Your task to perform on an android device: Search for a new blush Image 0: 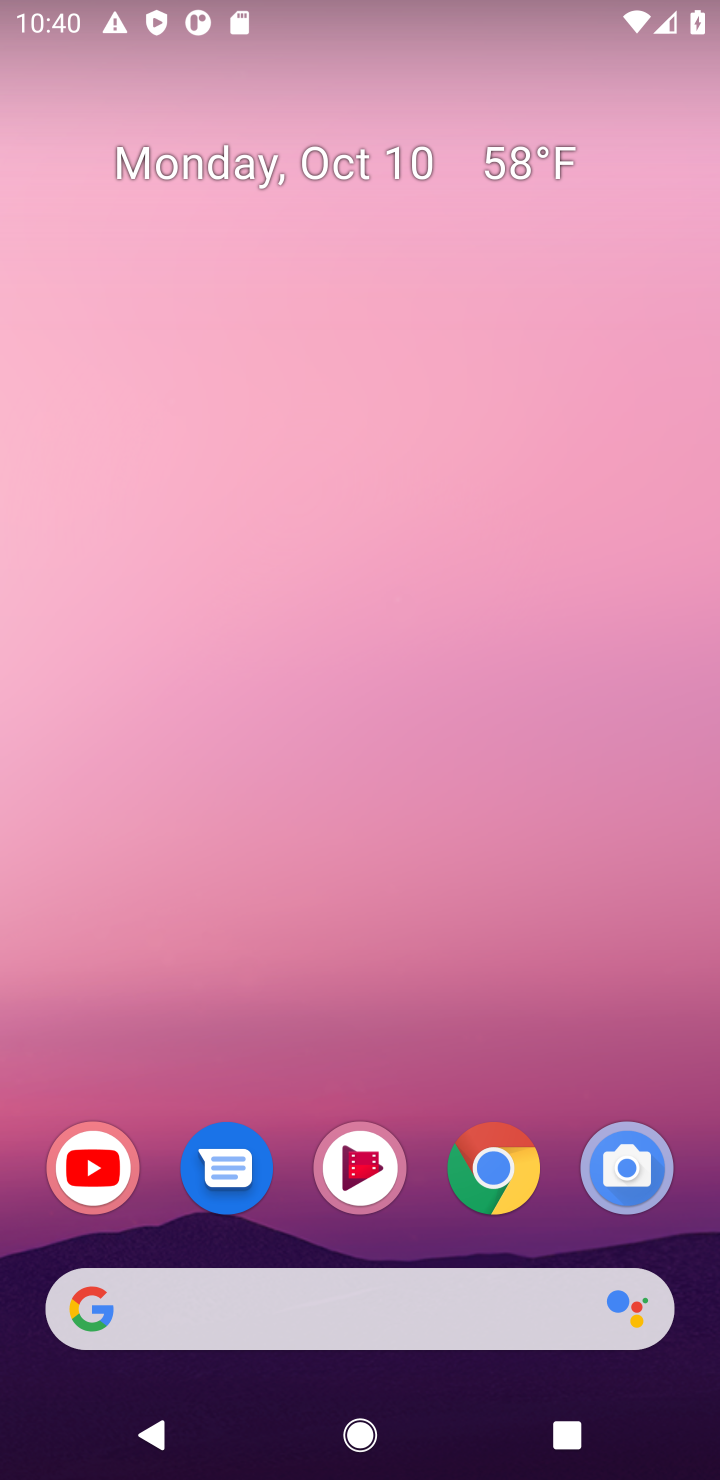
Step 0: click (332, 1313)
Your task to perform on an android device: Search for a new blush Image 1: 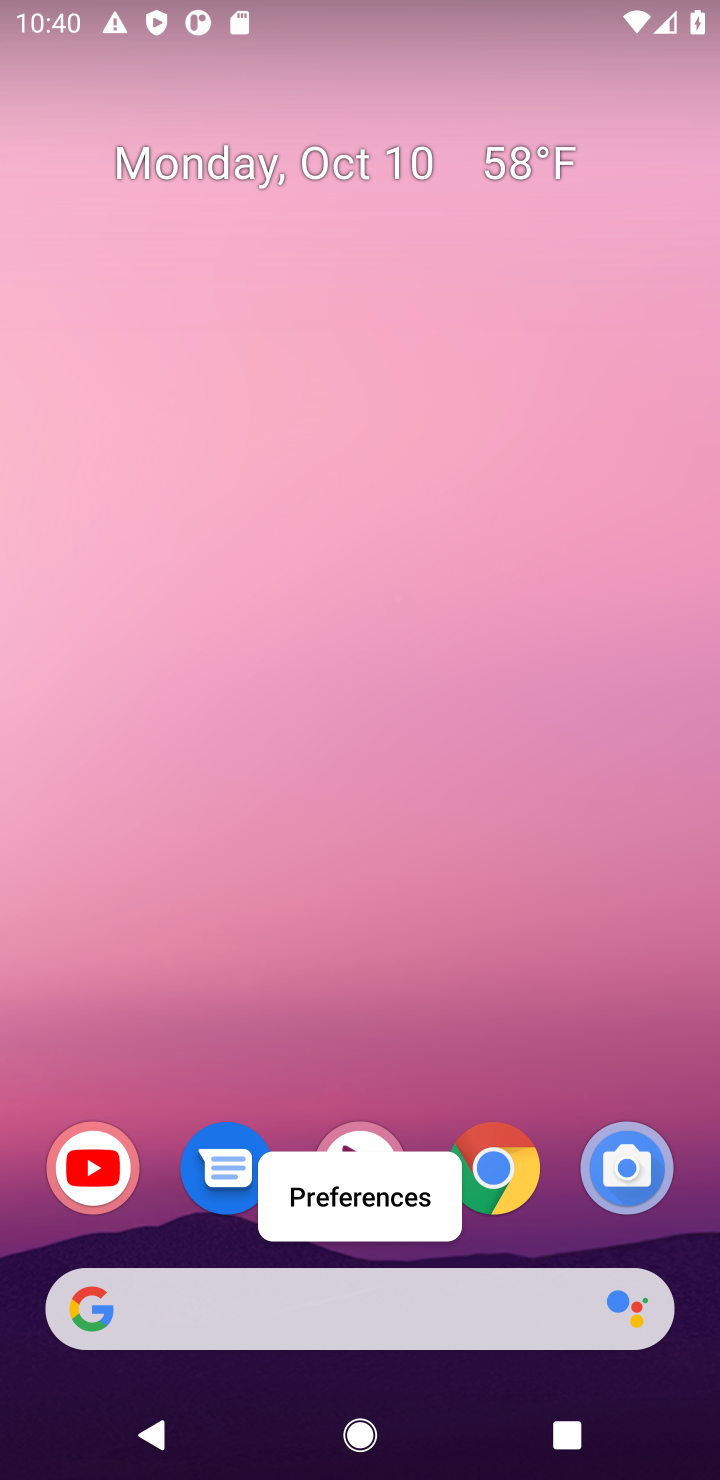
Step 1: click (330, 1325)
Your task to perform on an android device: Search for a new blush Image 2: 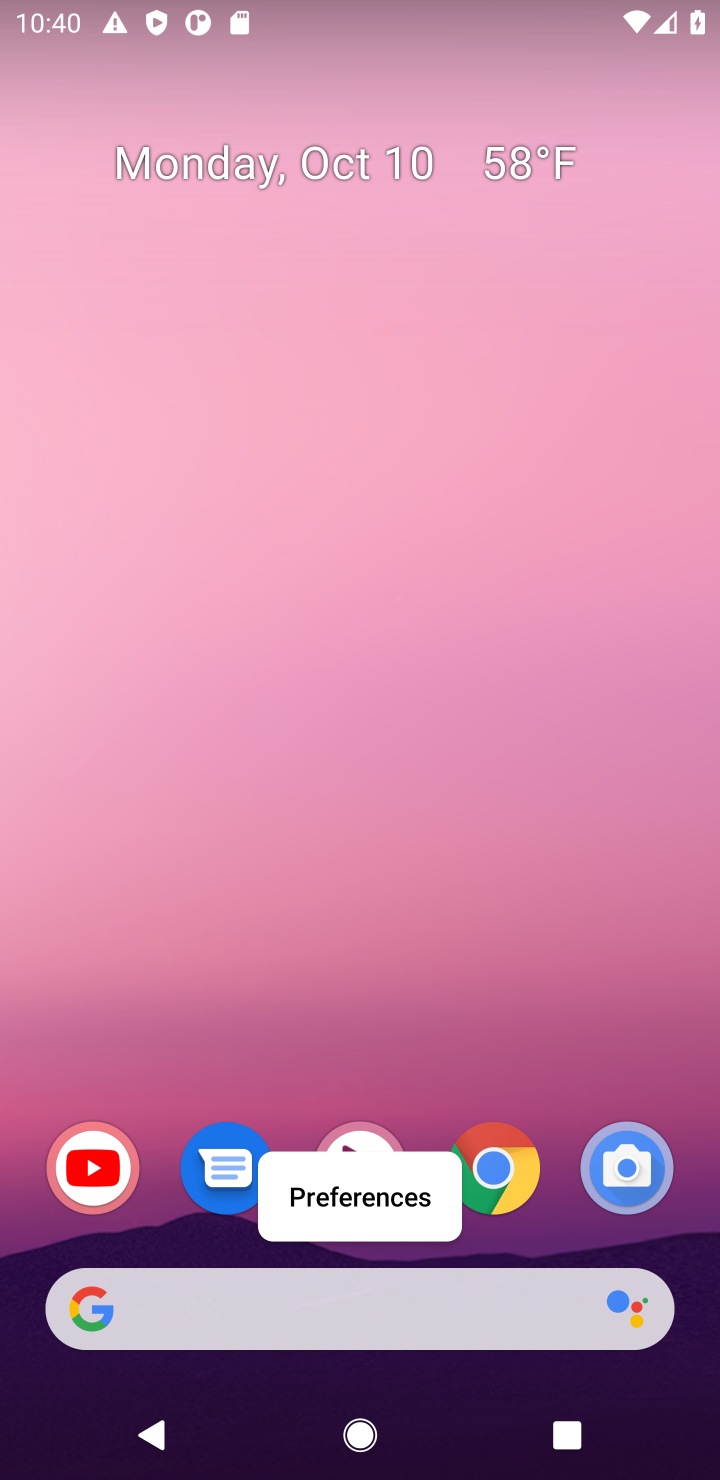
Step 2: click (330, 1325)
Your task to perform on an android device: Search for a new blush Image 3: 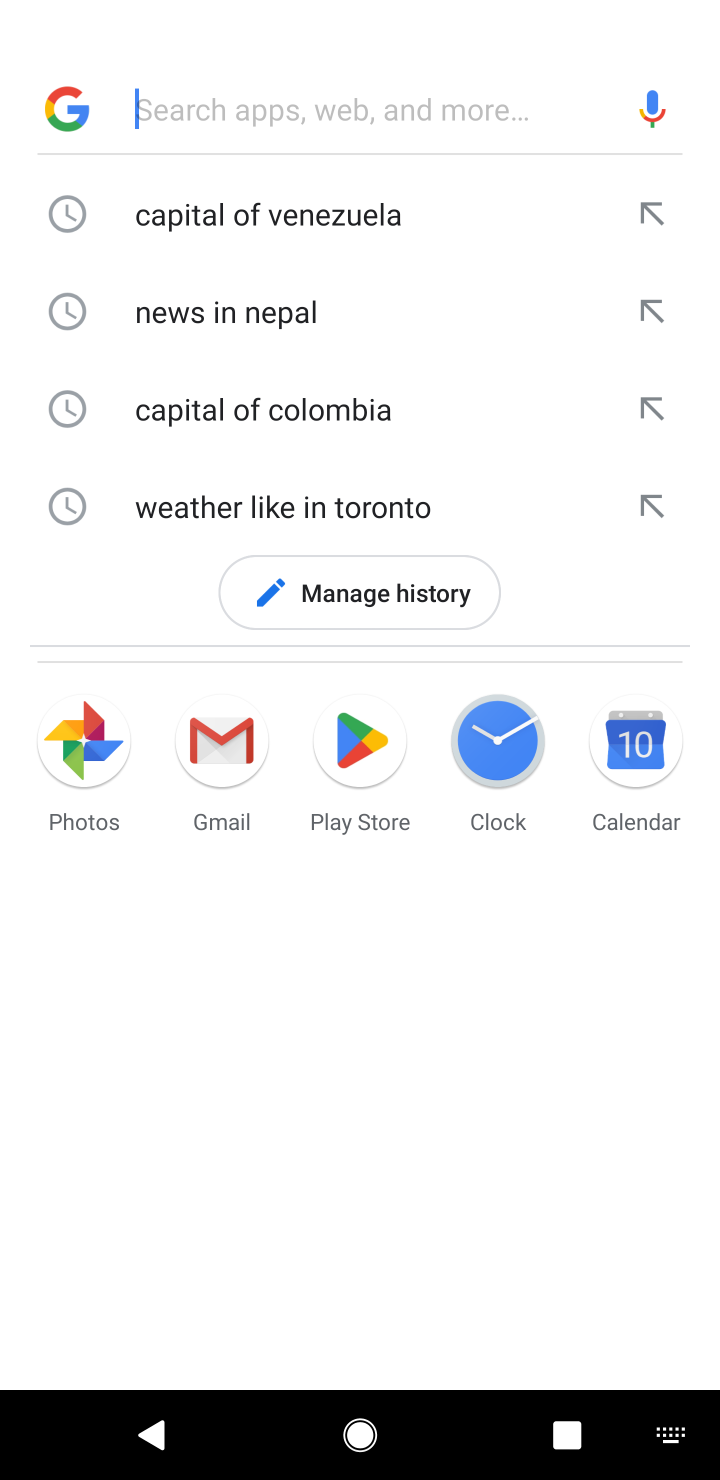
Step 3: type "new blush"
Your task to perform on an android device: Search for a new blush Image 4: 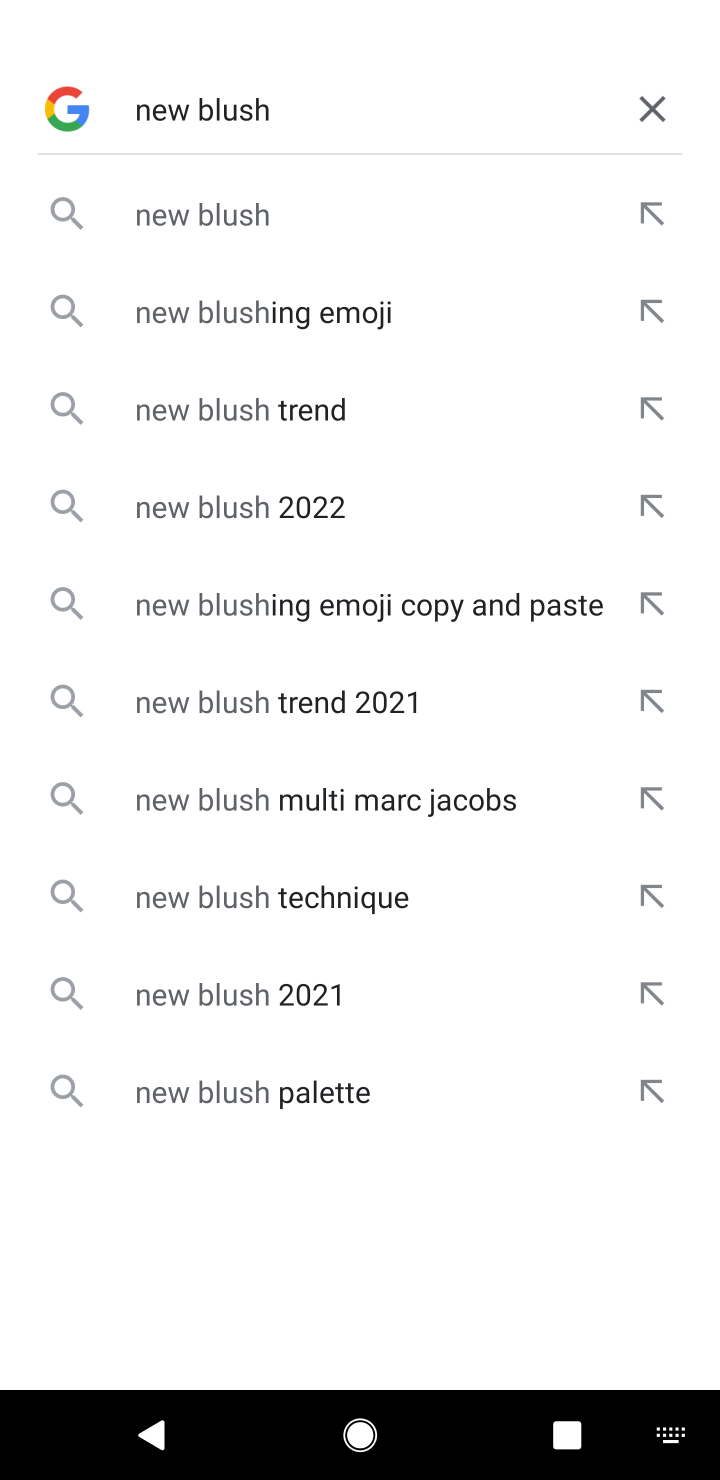
Step 4: type ""
Your task to perform on an android device: Search for a new blush Image 5: 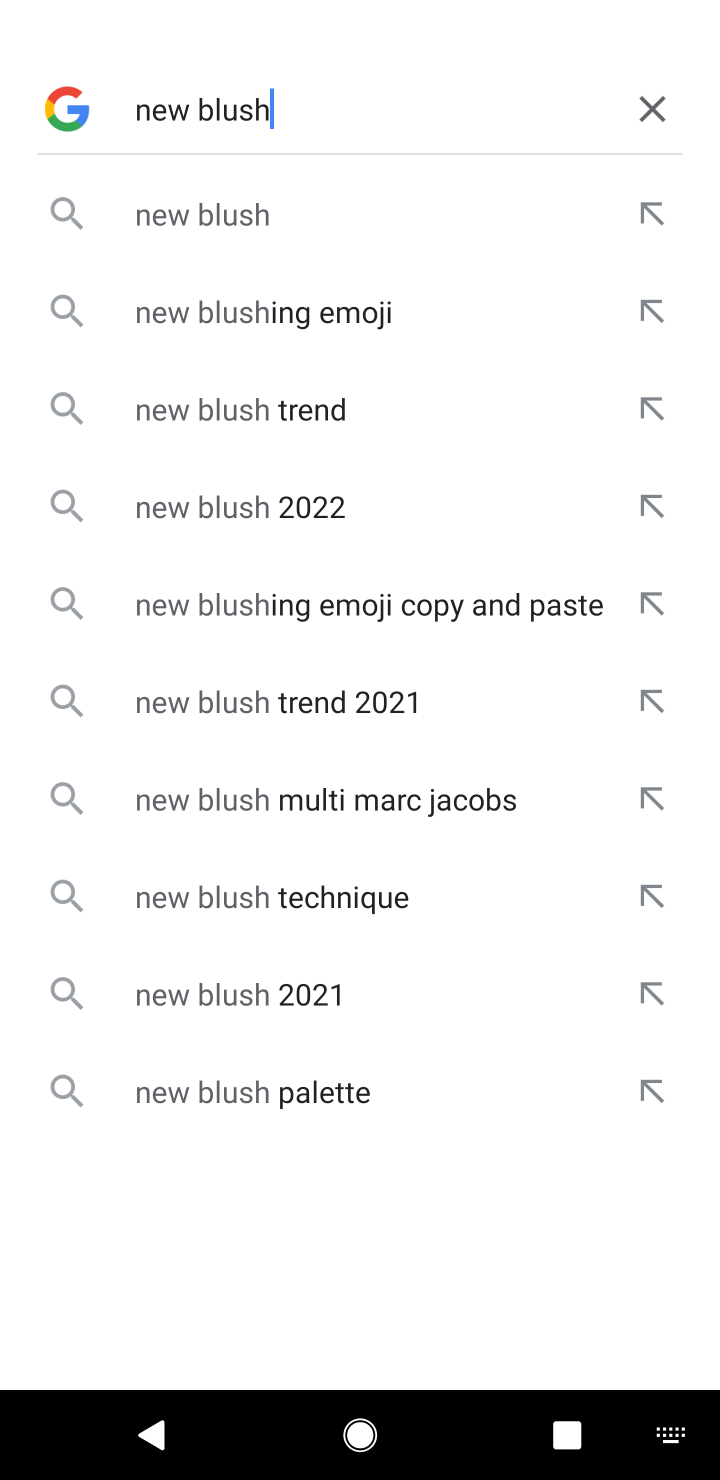
Step 5: click (290, 229)
Your task to perform on an android device: Search for a new blush Image 6: 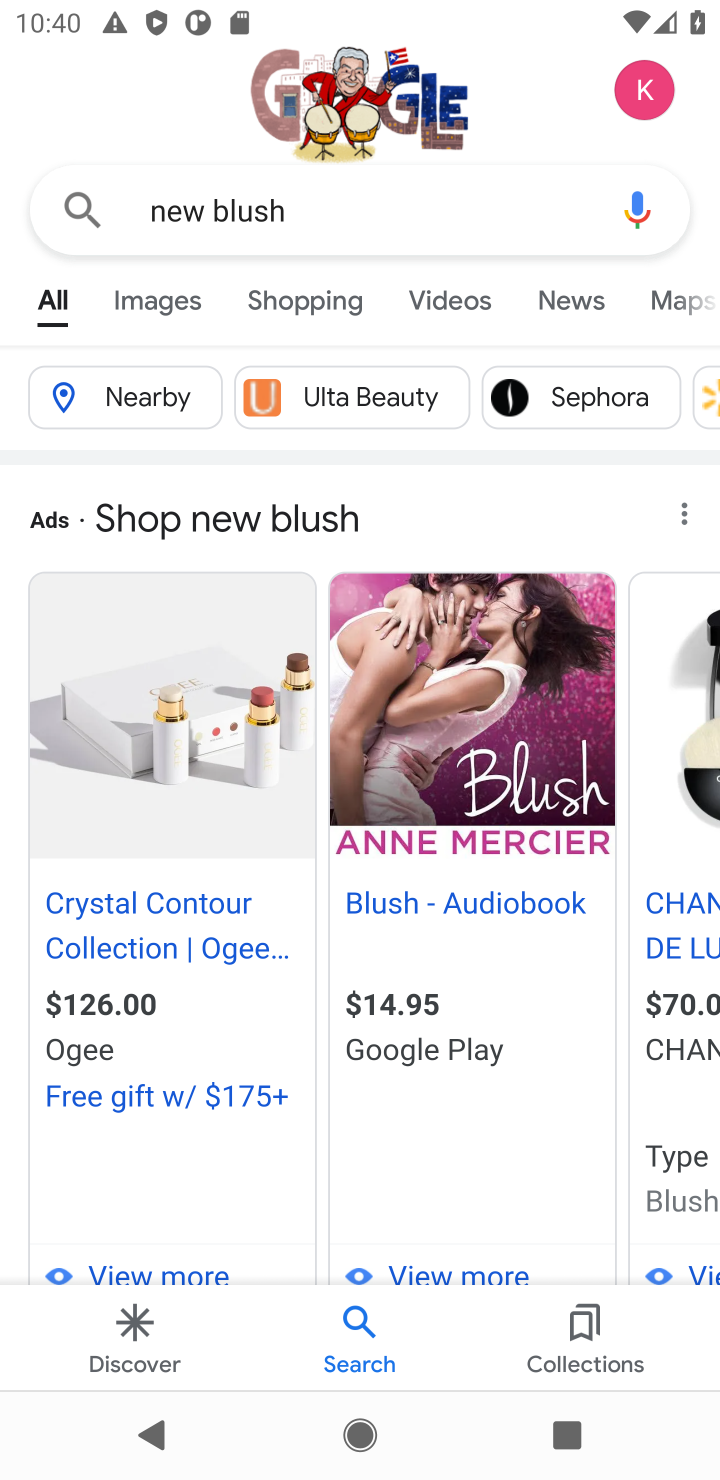
Step 6: task complete